Your task to perform on an android device: Show me recent news Image 0: 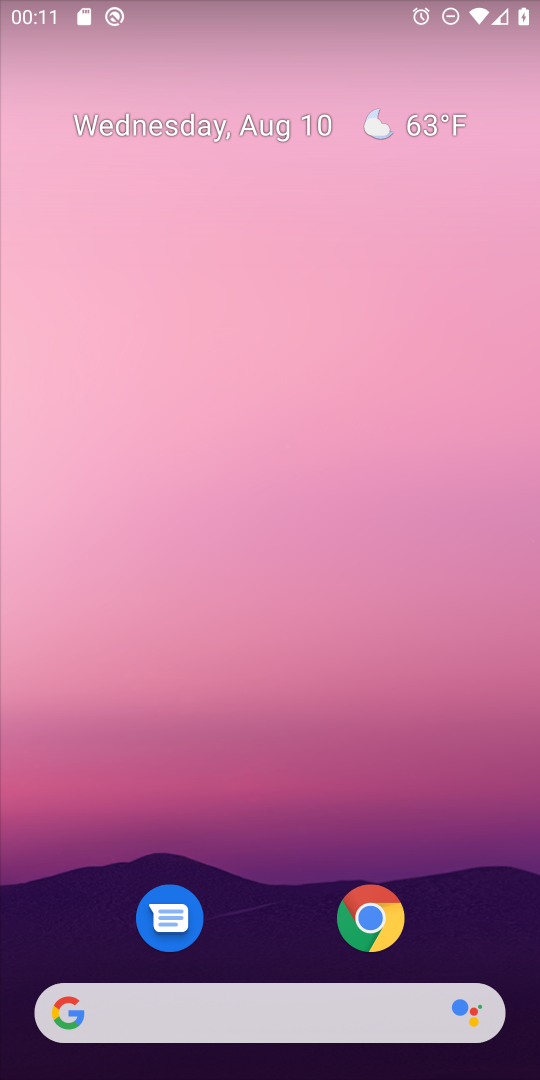
Step 0: drag from (272, 955) to (315, 161)
Your task to perform on an android device: Show me recent news Image 1: 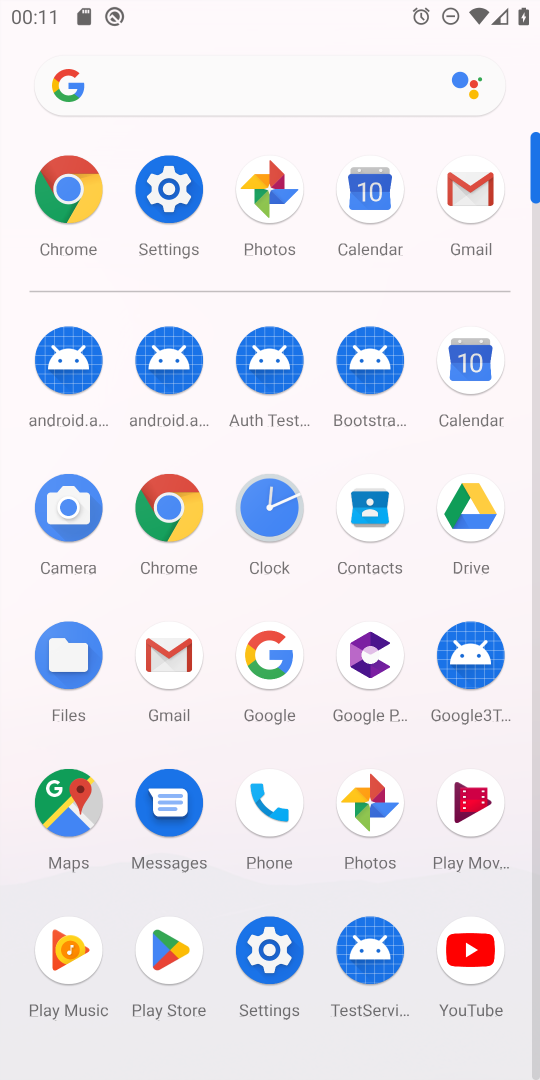
Step 1: click (180, 506)
Your task to perform on an android device: Show me recent news Image 2: 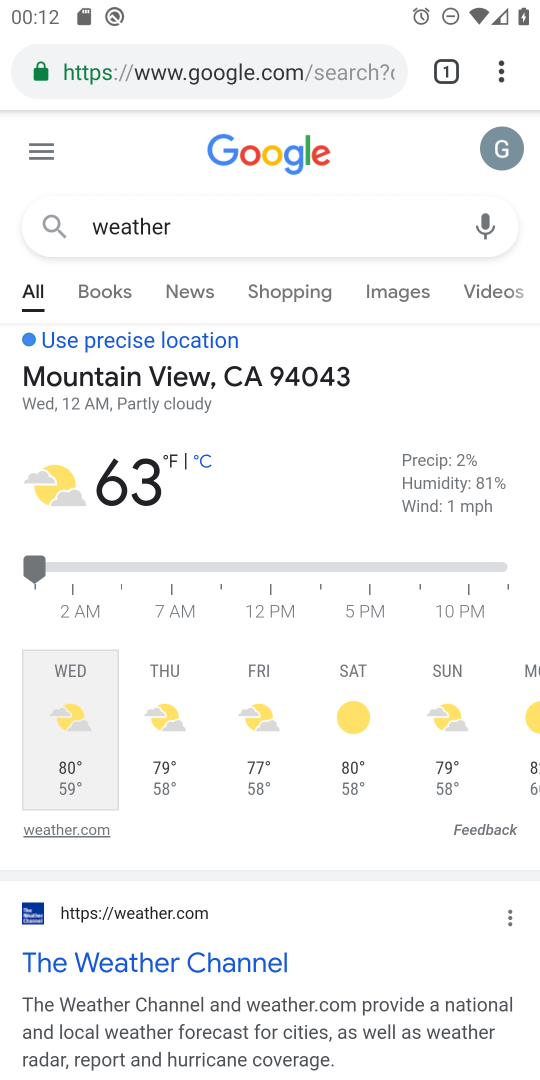
Step 2: click (318, 65)
Your task to perform on an android device: Show me recent news Image 3: 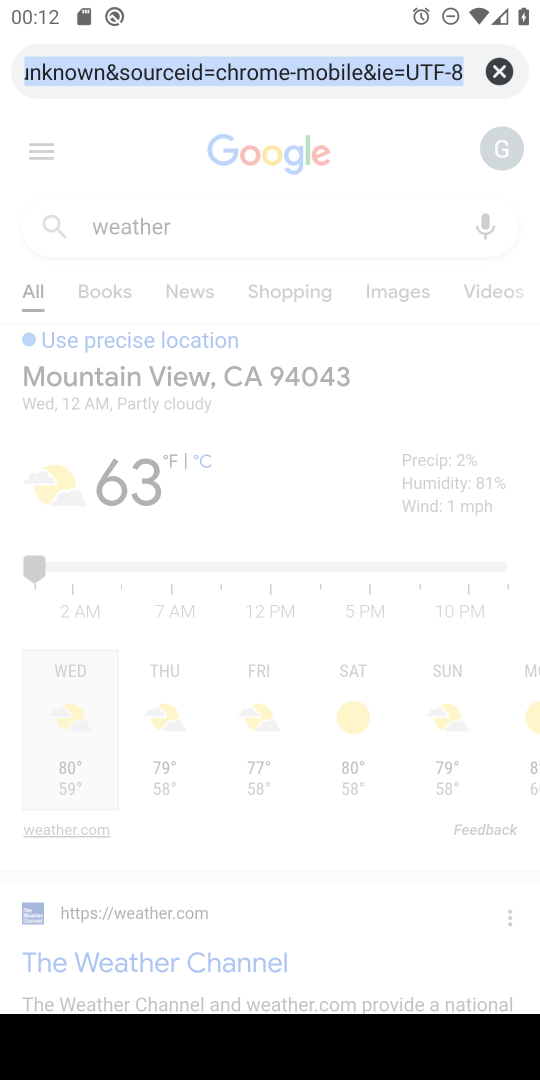
Step 3: type "news"
Your task to perform on an android device: Show me recent news Image 4: 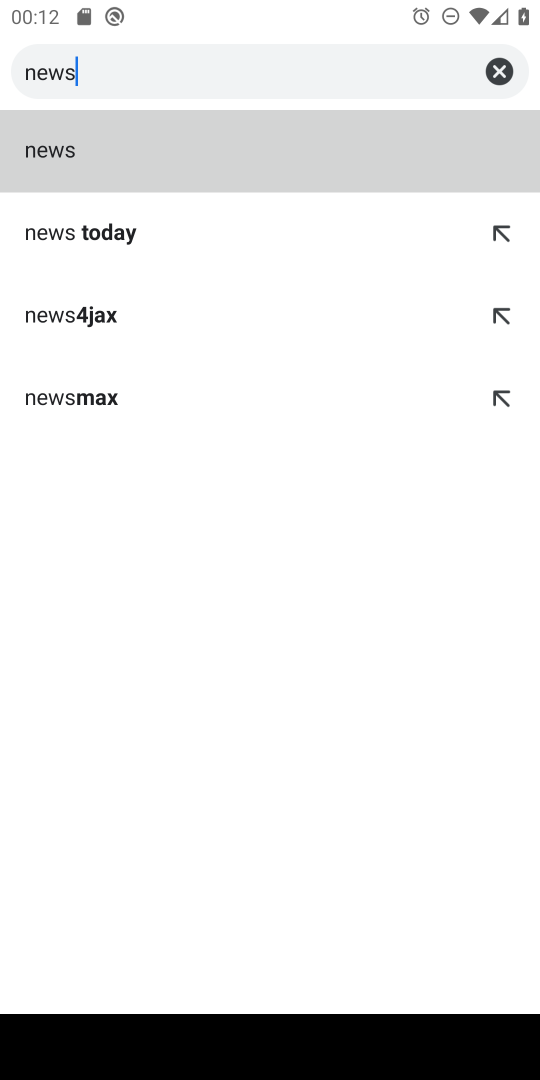
Step 4: type ""
Your task to perform on an android device: Show me recent news Image 5: 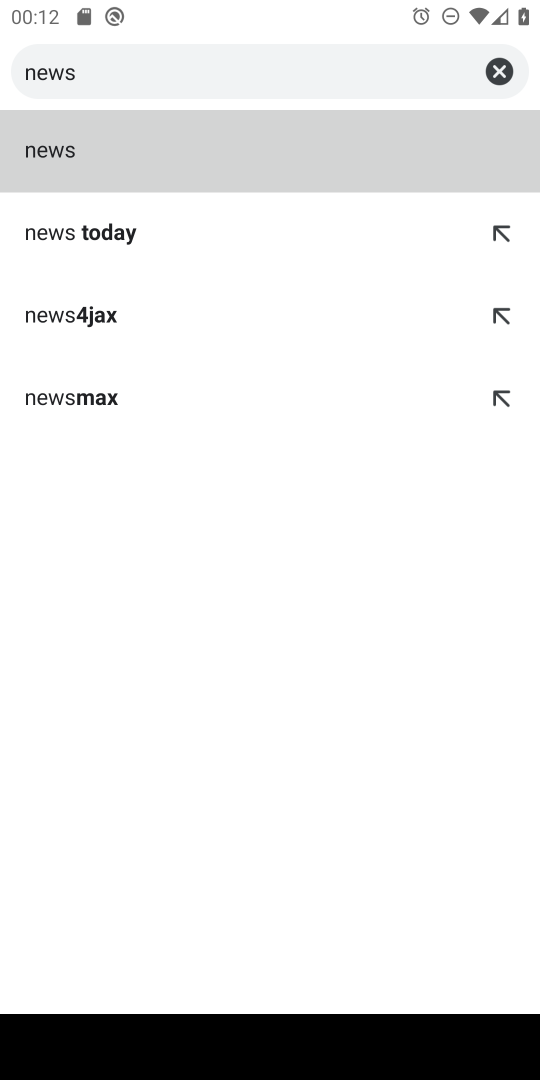
Step 5: click (69, 156)
Your task to perform on an android device: Show me recent news Image 6: 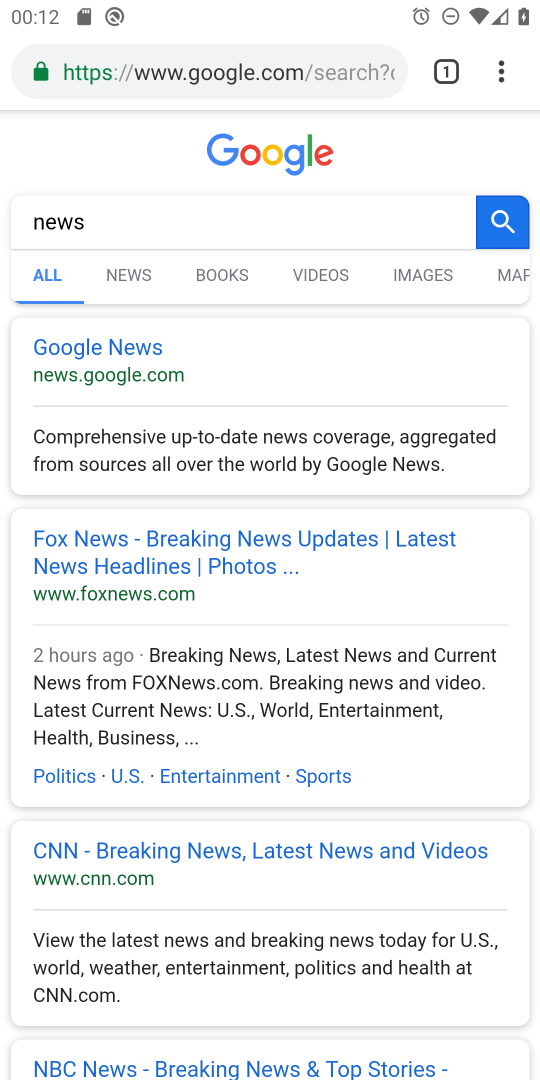
Step 6: click (96, 340)
Your task to perform on an android device: Show me recent news Image 7: 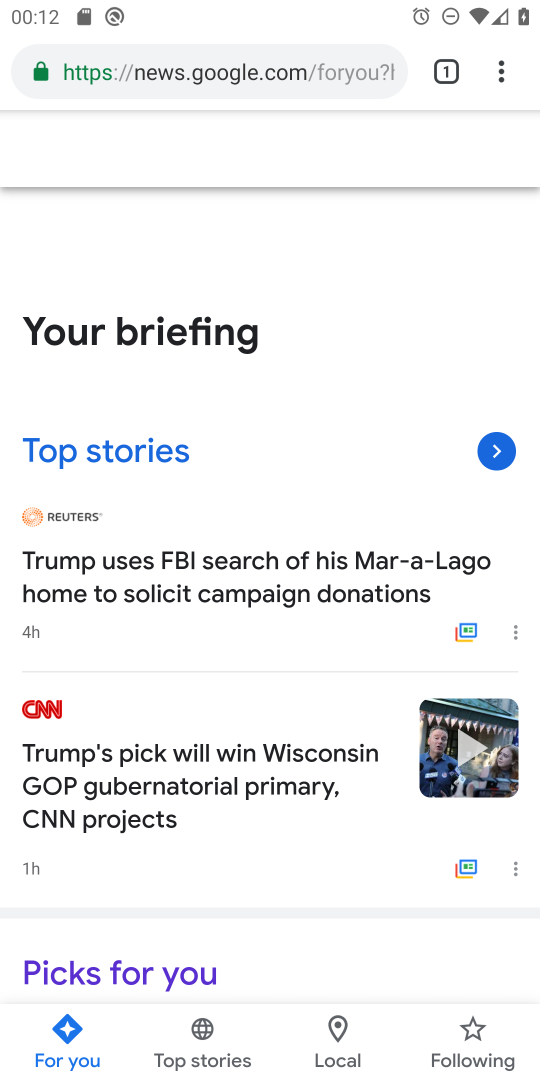
Step 7: task complete